Your task to perform on an android device: Search for pizza restaurants on Maps Image 0: 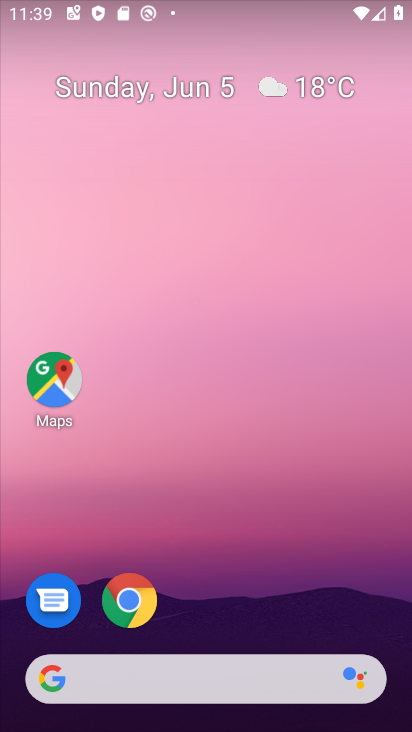
Step 0: click (51, 409)
Your task to perform on an android device: Search for pizza restaurants on Maps Image 1: 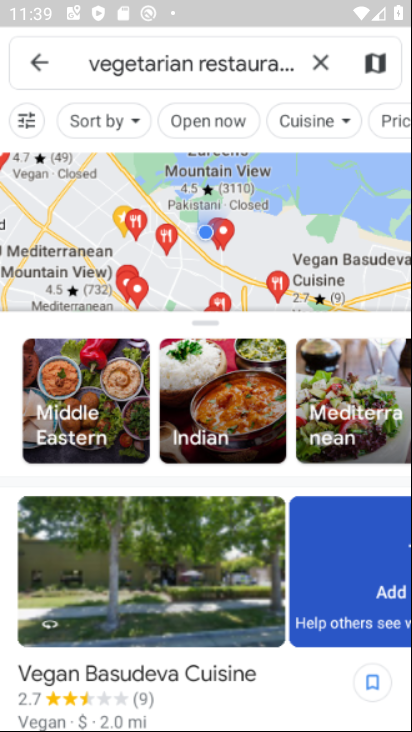
Step 1: click (317, 69)
Your task to perform on an android device: Search for pizza restaurants on Maps Image 2: 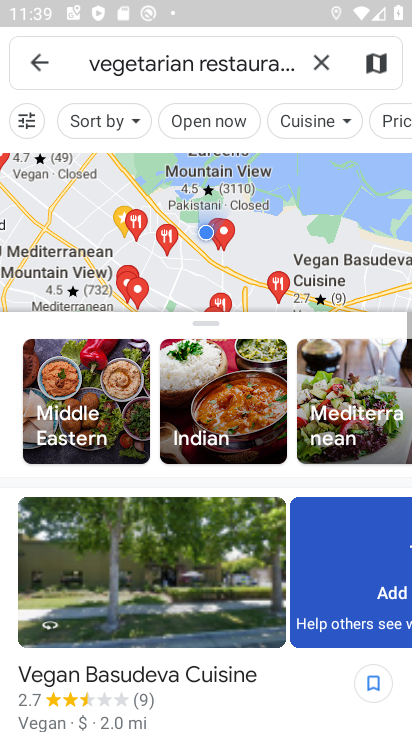
Step 2: click (320, 56)
Your task to perform on an android device: Search for pizza restaurants on Maps Image 3: 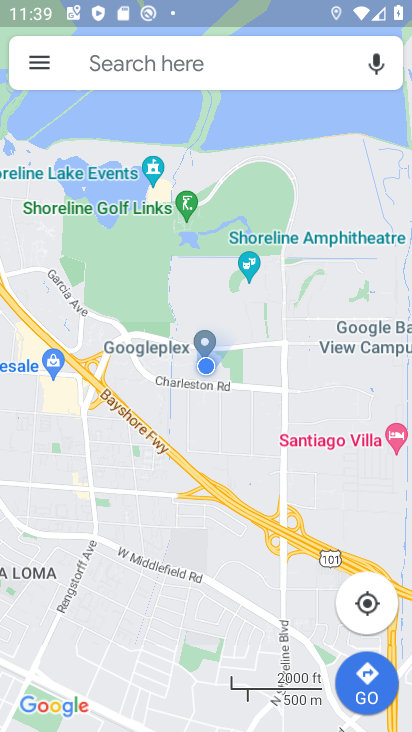
Step 3: click (181, 61)
Your task to perform on an android device: Search for pizza restaurants on Maps Image 4: 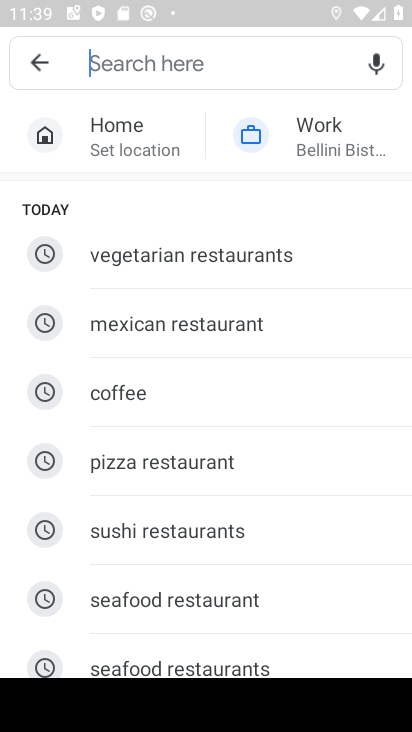
Step 4: click (211, 472)
Your task to perform on an android device: Search for pizza restaurants on Maps Image 5: 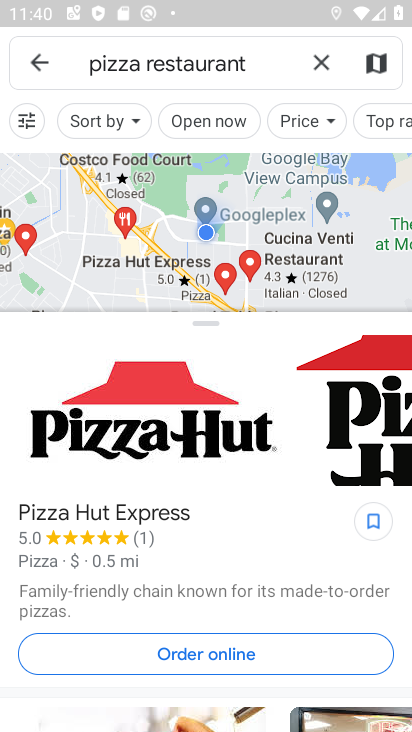
Step 5: task complete